Your task to perform on an android device: turn pop-ups off in chrome Image 0: 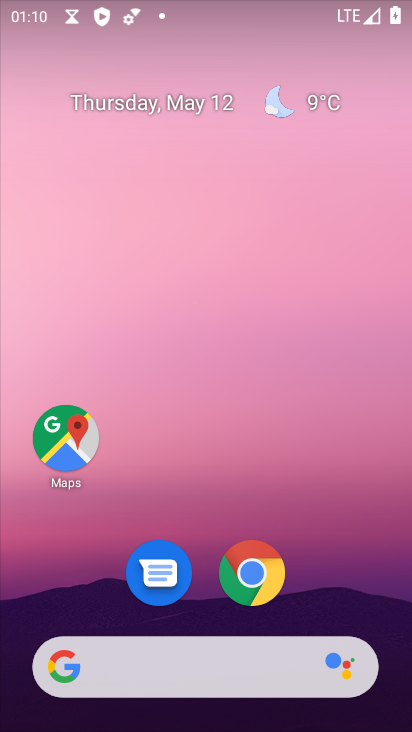
Step 0: click (258, 566)
Your task to perform on an android device: turn pop-ups off in chrome Image 1: 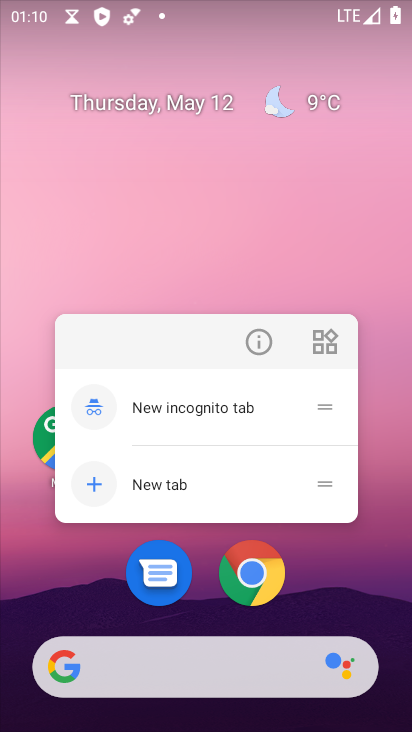
Step 1: click (258, 566)
Your task to perform on an android device: turn pop-ups off in chrome Image 2: 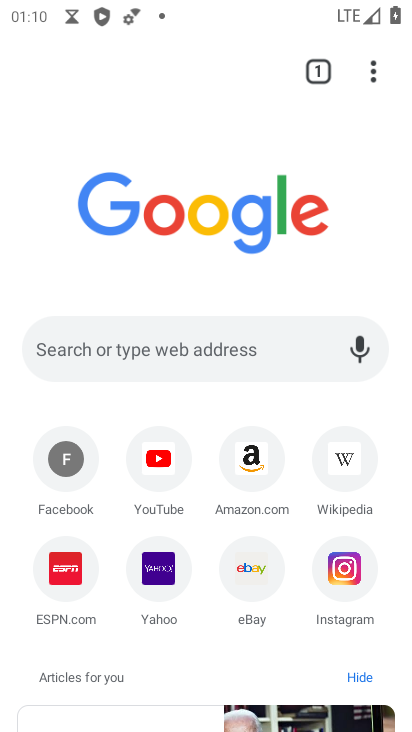
Step 2: click (382, 83)
Your task to perform on an android device: turn pop-ups off in chrome Image 3: 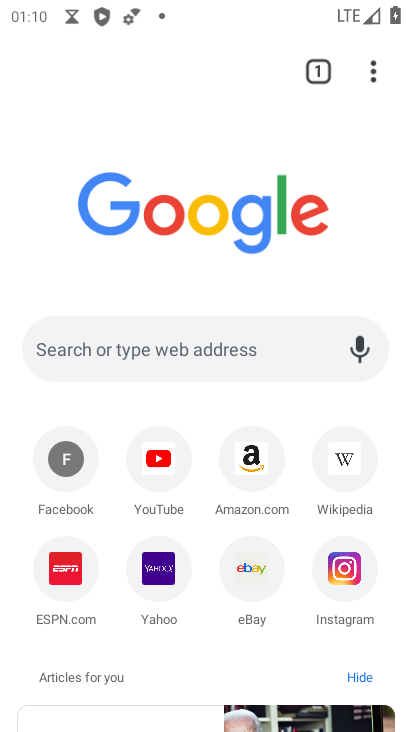
Step 3: click (381, 83)
Your task to perform on an android device: turn pop-ups off in chrome Image 4: 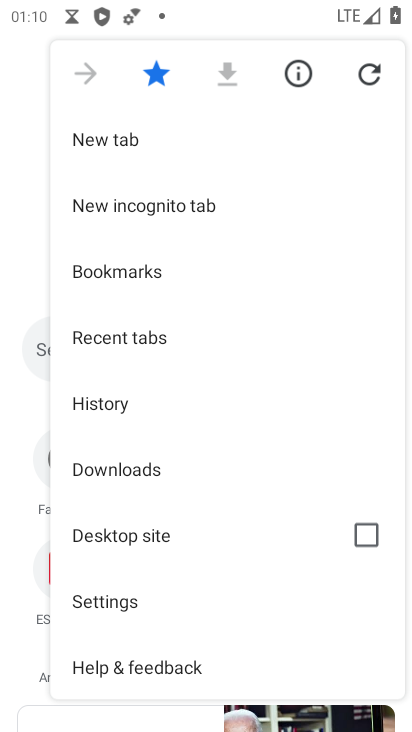
Step 4: click (94, 607)
Your task to perform on an android device: turn pop-ups off in chrome Image 5: 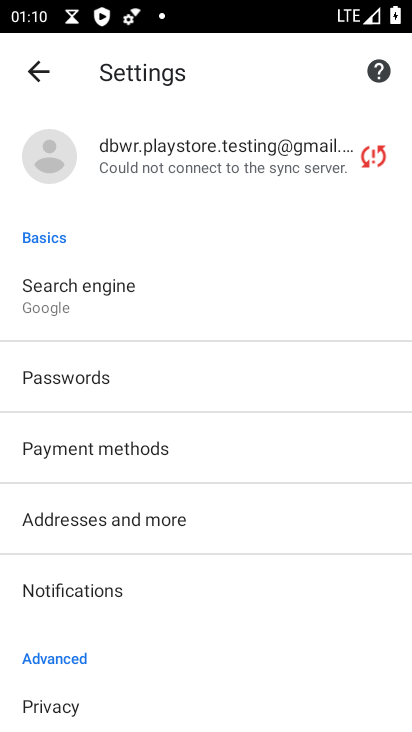
Step 5: drag from (181, 557) to (244, 146)
Your task to perform on an android device: turn pop-ups off in chrome Image 6: 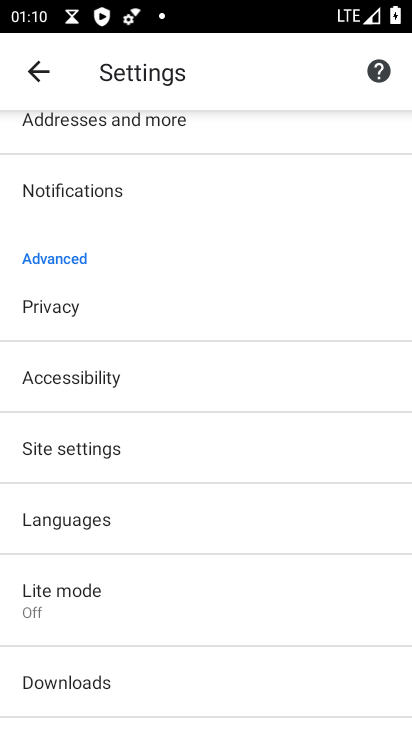
Step 6: click (117, 455)
Your task to perform on an android device: turn pop-ups off in chrome Image 7: 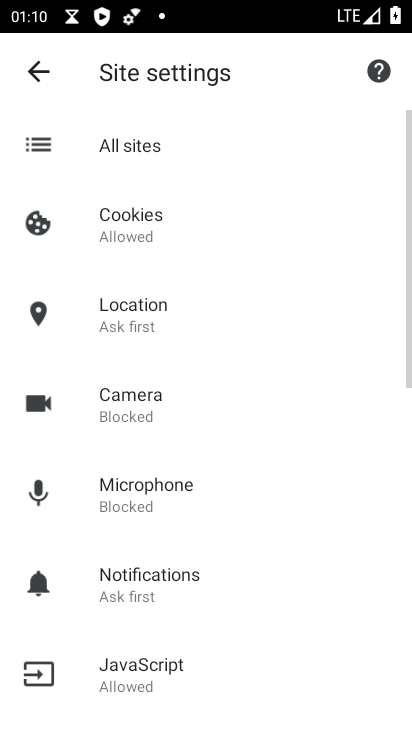
Step 7: drag from (123, 654) to (118, 289)
Your task to perform on an android device: turn pop-ups off in chrome Image 8: 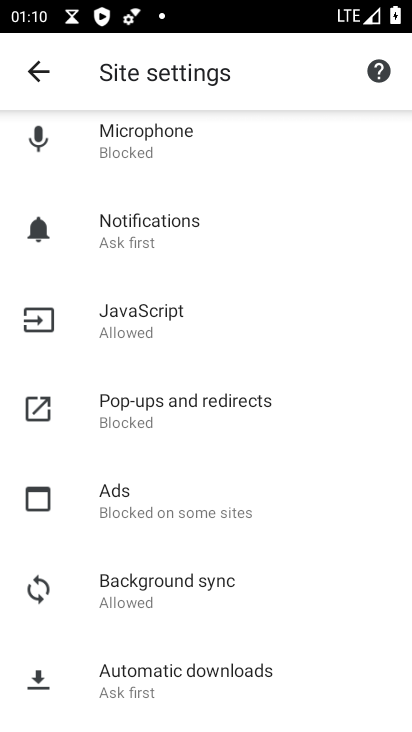
Step 8: click (153, 429)
Your task to perform on an android device: turn pop-ups off in chrome Image 9: 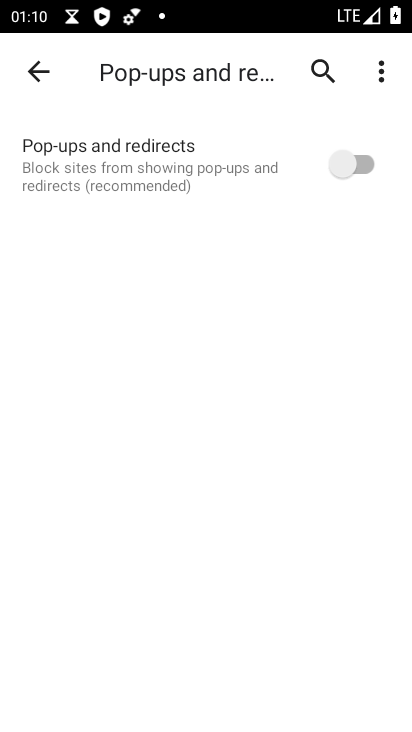
Step 9: task complete